Your task to perform on an android device: find snoozed emails in the gmail app Image 0: 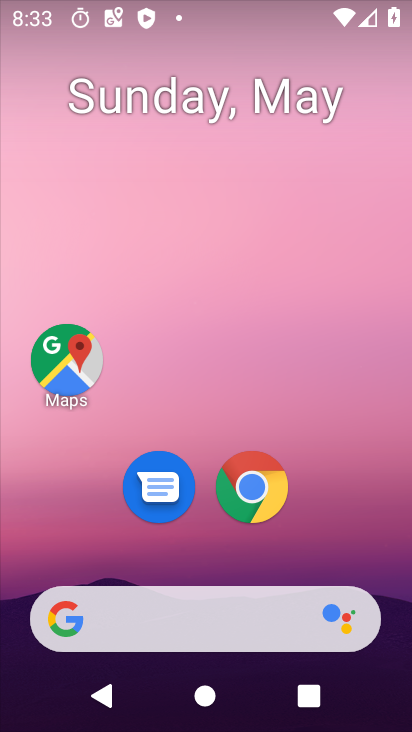
Step 0: press home button
Your task to perform on an android device: find snoozed emails in the gmail app Image 1: 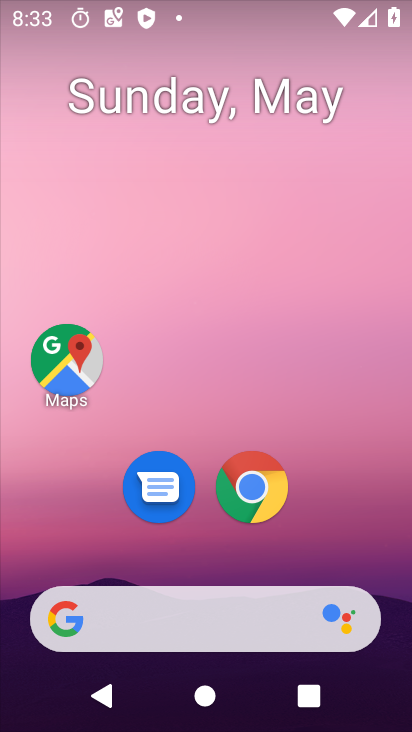
Step 1: drag from (5, 560) to (164, 234)
Your task to perform on an android device: find snoozed emails in the gmail app Image 2: 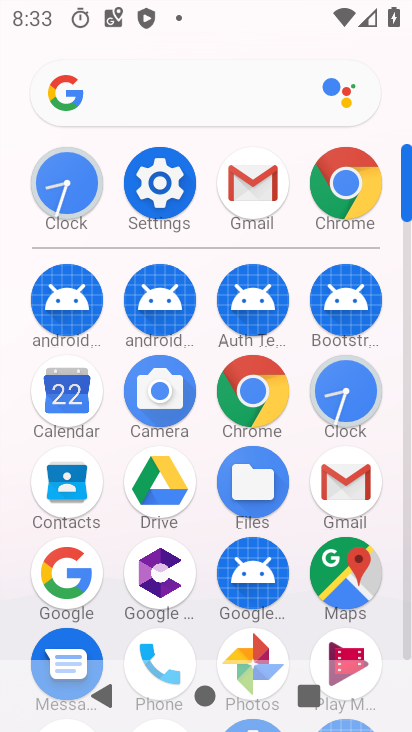
Step 2: click (262, 206)
Your task to perform on an android device: find snoozed emails in the gmail app Image 3: 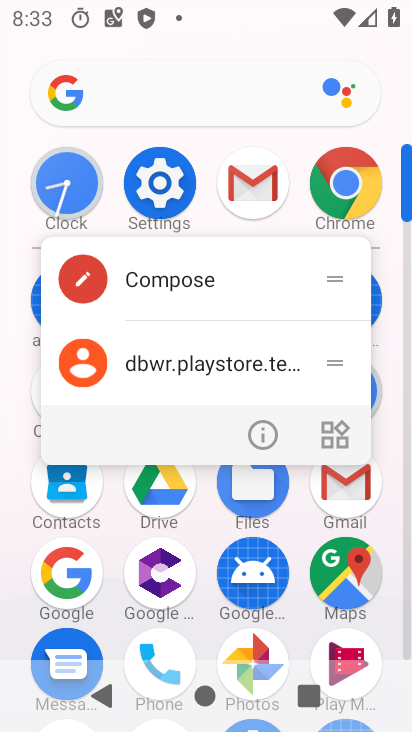
Step 3: click (249, 169)
Your task to perform on an android device: find snoozed emails in the gmail app Image 4: 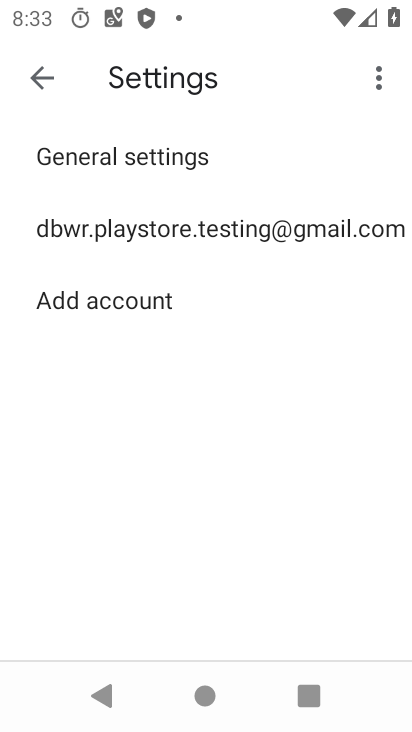
Step 4: click (46, 78)
Your task to perform on an android device: find snoozed emails in the gmail app Image 5: 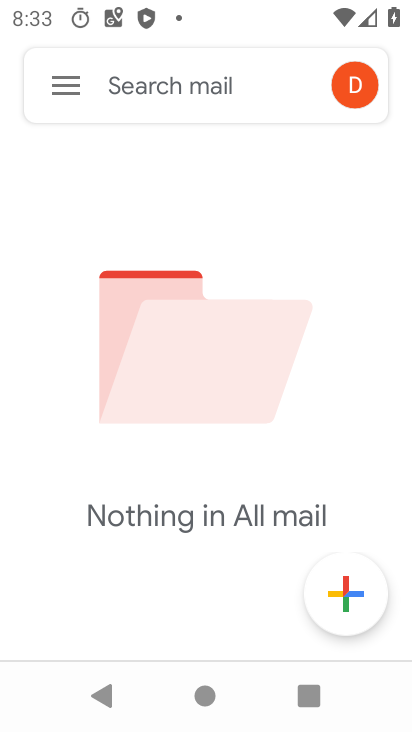
Step 5: click (57, 91)
Your task to perform on an android device: find snoozed emails in the gmail app Image 6: 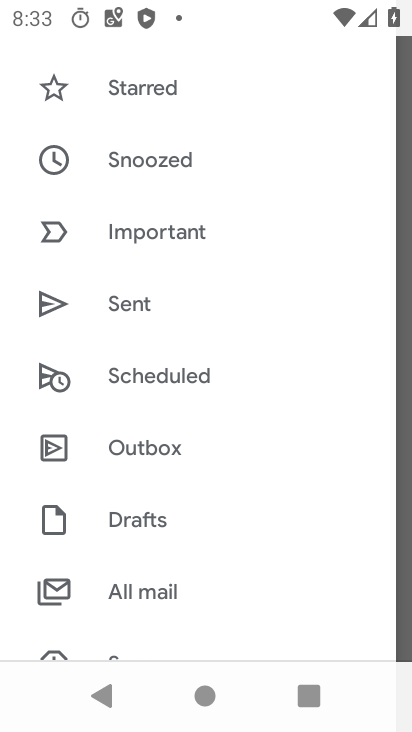
Step 6: click (165, 166)
Your task to perform on an android device: find snoozed emails in the gmail app Image 7: 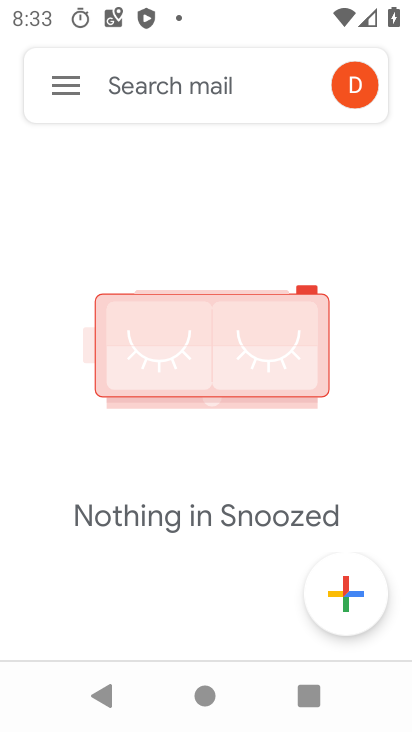
Step 7: task complete